Your task to perform on an android device: Show me recent news Image 0: 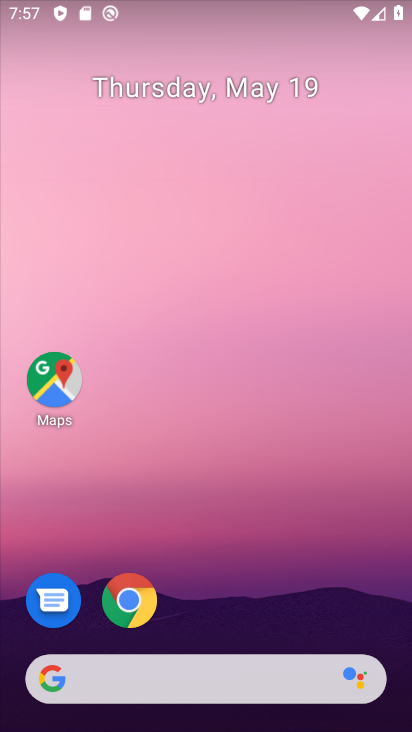
Step 0: click (210, 666)
Your task to perform on an android device: Show me recent news Image 1: 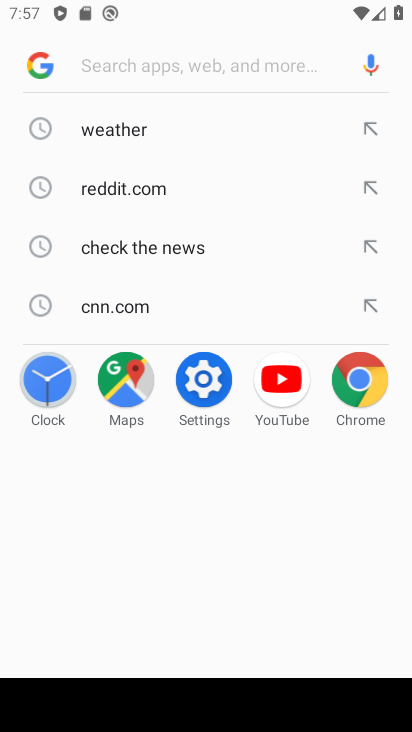
Step 1: click (161, 256)
Your task to perform on an android device: Show me recent news Image 2: 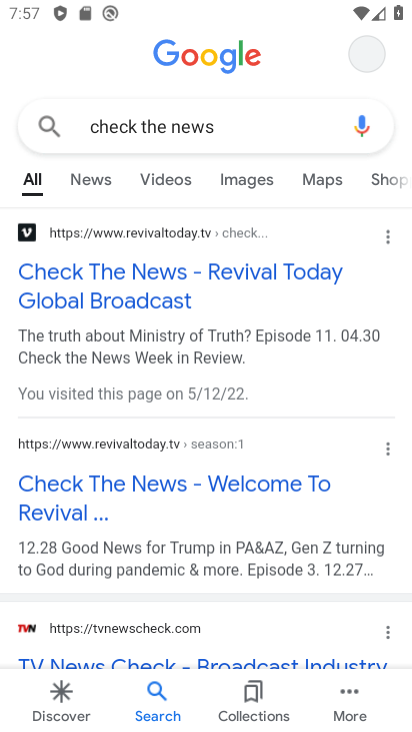
Step 2: task complete